Your task to perform on an android device: What is the news today? Image 0: 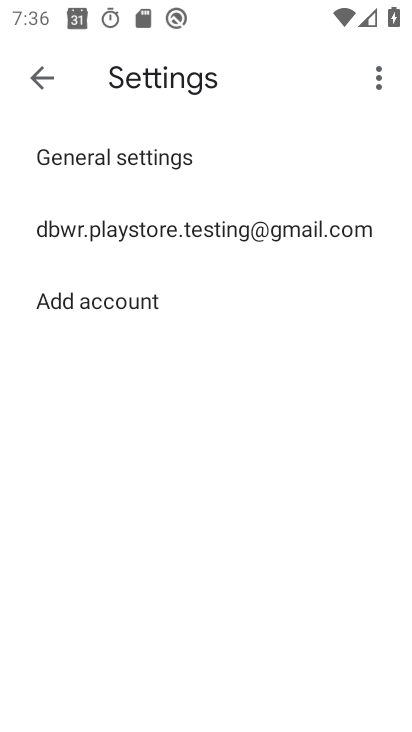
Step 0: press home button
Your task to perform on an android device: What is the news today? Image 1: 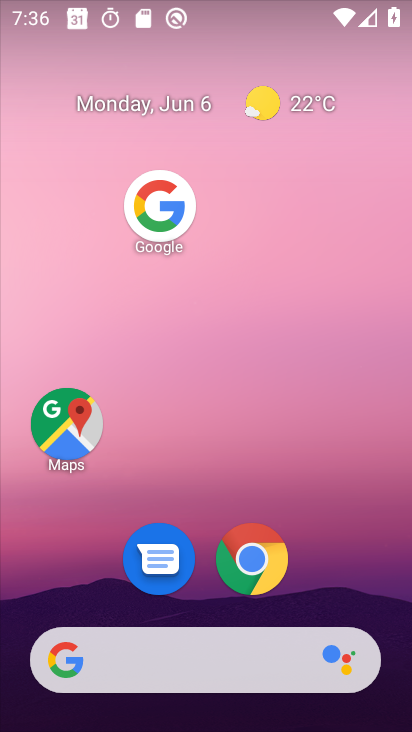
Step 1: drag from (218, 240) to (232, 159)
Your task to perform on an android device: What is the news today? Image 2: 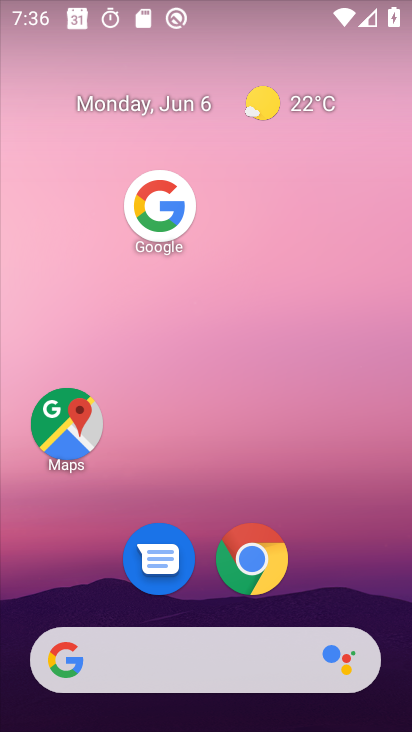
Step 2: drag from (223, 476) to (285, 119)
Your task to perform on an android device: What is the news today? Image 3: 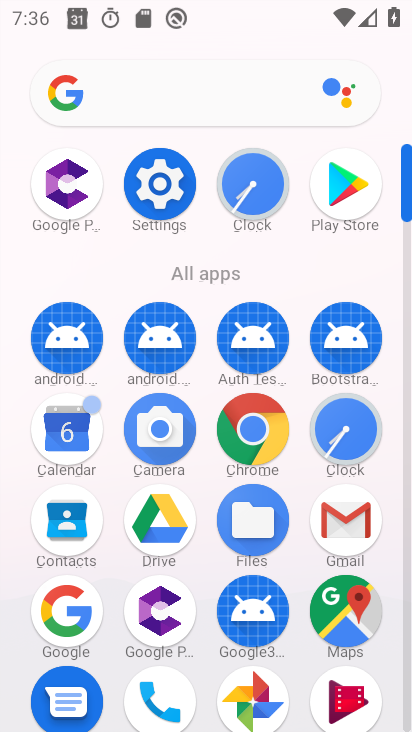
Step 3: click (258, 430)
Your task to perform on an android device: What is the news today? Image 4: 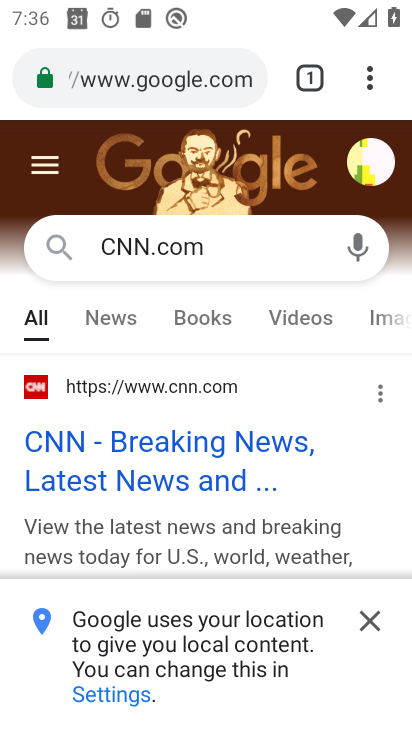
Step 4: click (128, 79)
Your task to perform on an android device: What is the news today? Image 5: 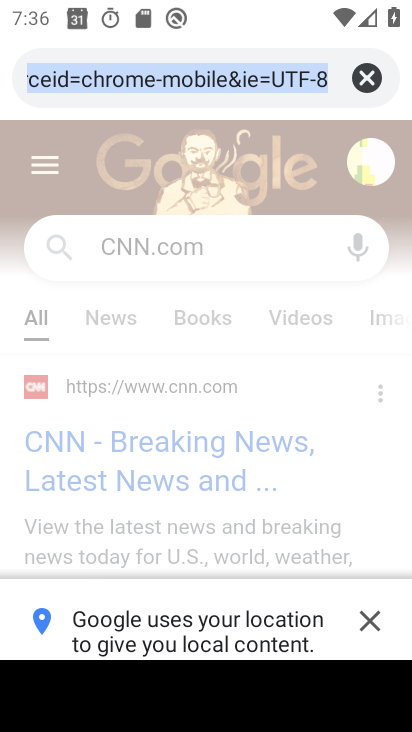
Step 5: type "What is the news today?"
Your task to perform on an android device: What is the news today? Image 6: 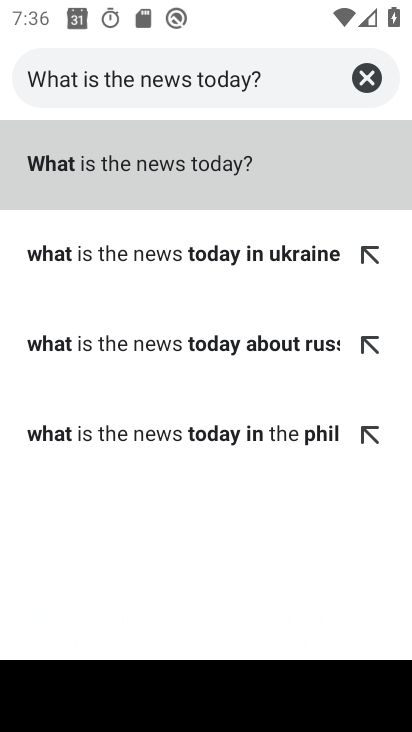
Step 6: click (170, 191)
Your task to perform on an android device: What is the news today? Image 7: 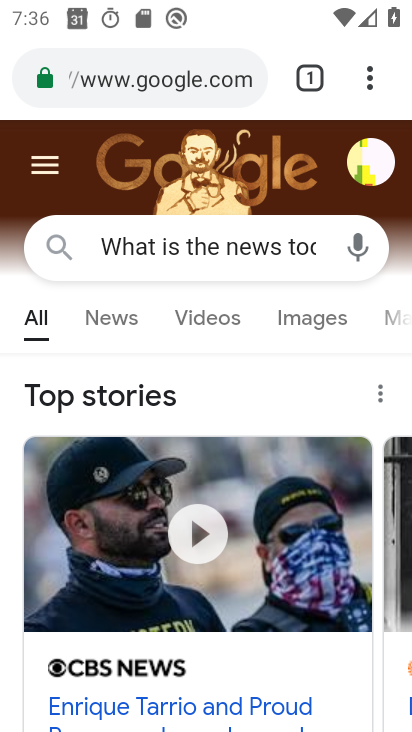
Step 7: task complete